Your task to perform on an android device: toggle notification dots Image 0: 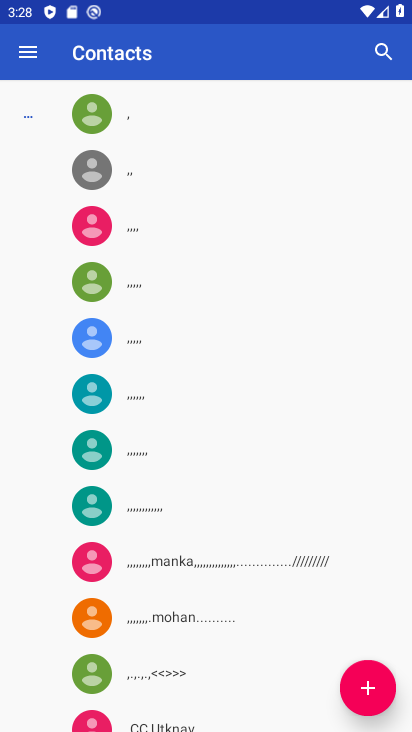
Step 0: press home button
Your task to perform on an android device: toggle notification dots Image 1: 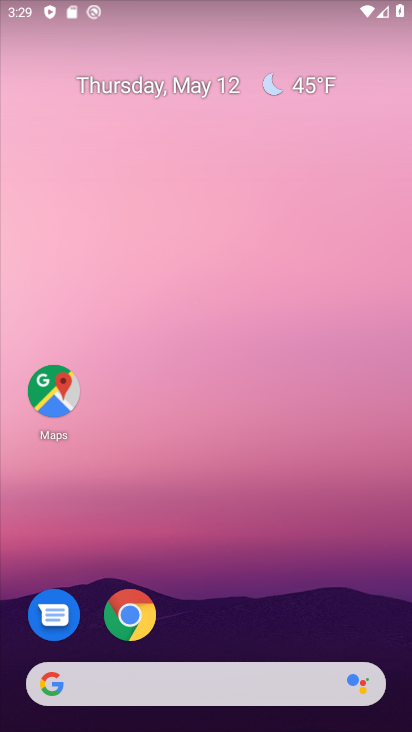
Step 1: drag from (211, 608) to (188, 83)
Your task to perform on an android device: toggle notification dots Image 2: 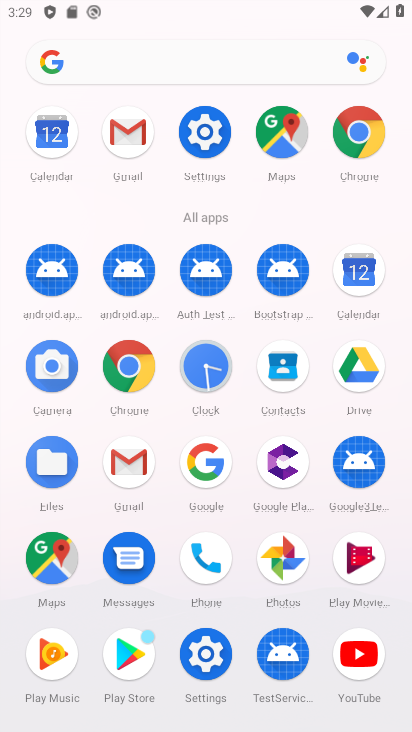
Step 2: click (201, 655)
Your task to perform on an android device: toggle notification dots Image 3: 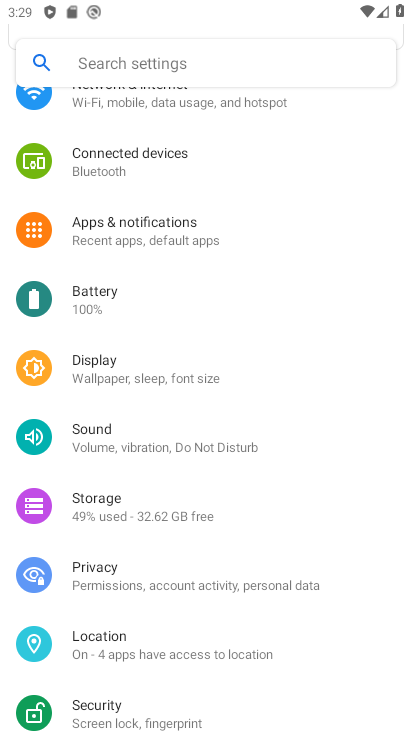
Step 3: drag from (246, 608) to (217, 295)
Your task to perform on an android device: toggle notification dots Image 4: 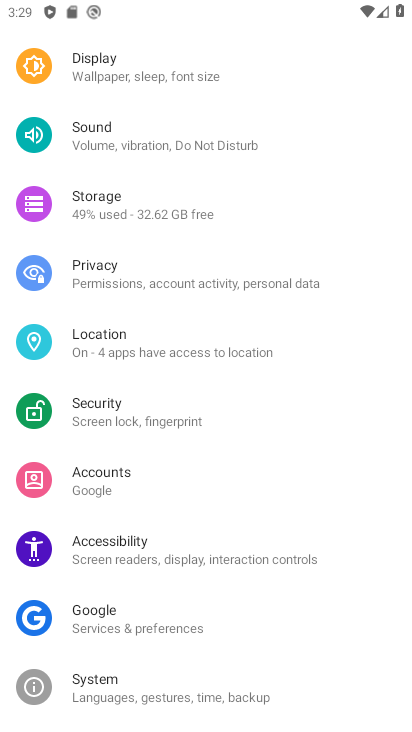
Step 4: drag from (111, 81) to (128, 341)
Your task to perform on an android device: toggle notification dots Image 5: 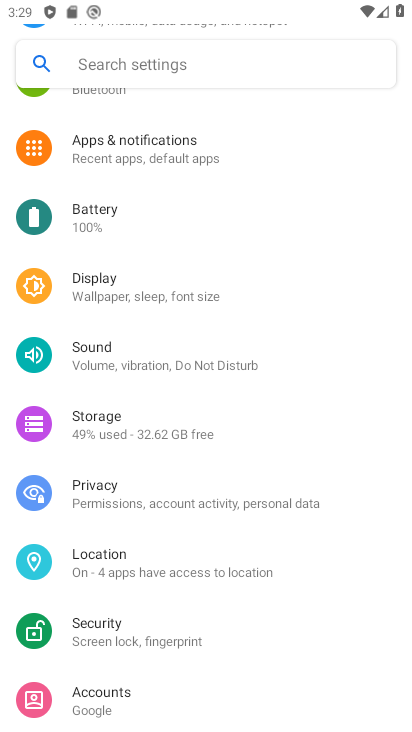
Step 5: click (121, 142)
Your task to perform on an android device: toggle notification dots Image 6: 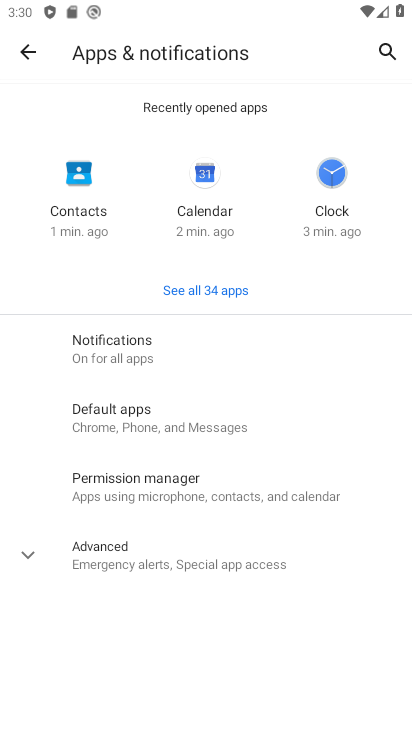
Step 6: click (137, 362)
Your task to perform on an android device: toggle notification dots Image 7: 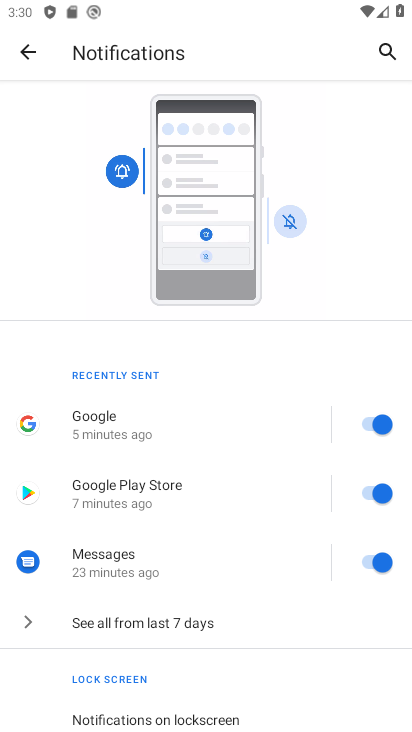
Step 7: drag from (279, 686) to (262, 312)
Your task to perform on an android device: toggle notification dots Image 8: 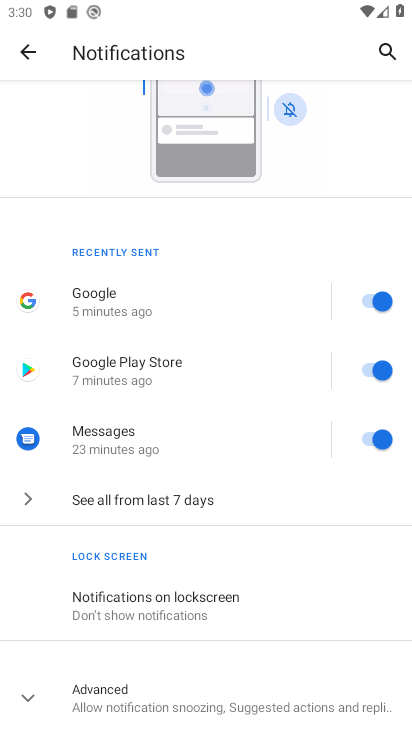
Step 8: click (156, 692)
Your task to perform on an android device: toggle notification dots Image 9: 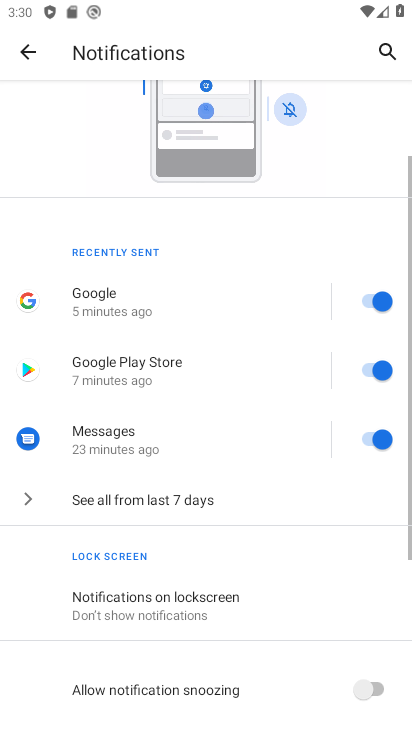
Step 9: drag from (238, 671) to (208, 273)
Your task to perform on an android device: toggle notification dots Image 10: 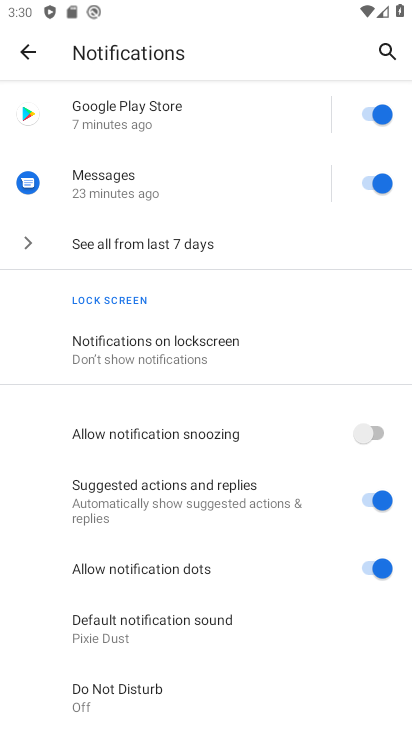
Step 10: click (370, 560)
Your task to perform on an android device: toggle notification dots Image 11: 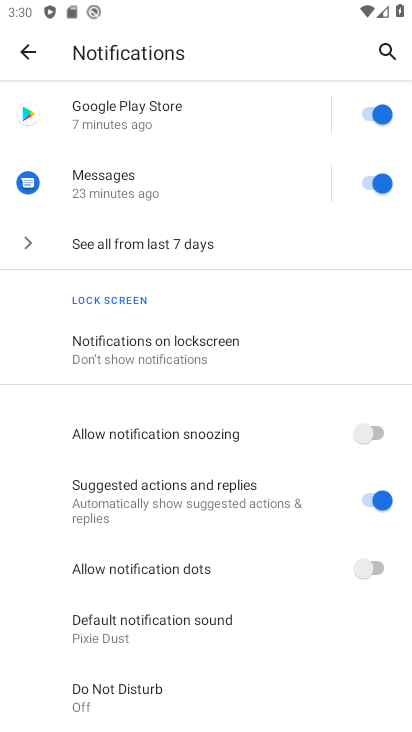
Step 11: task complete